Your task to perform on an android device: Open the calendar app, open the side menu, and click the "Day" option Image 0: 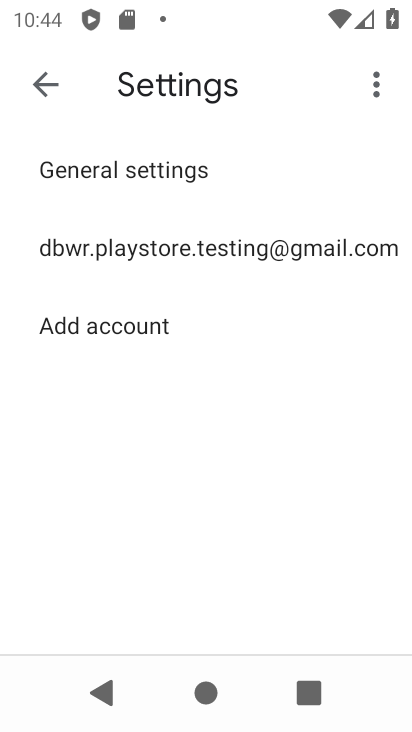
Step 0: press back button
Your task to perform on an android device: Open the calendar app, open the side menu, and click the "Day" option Image 1: 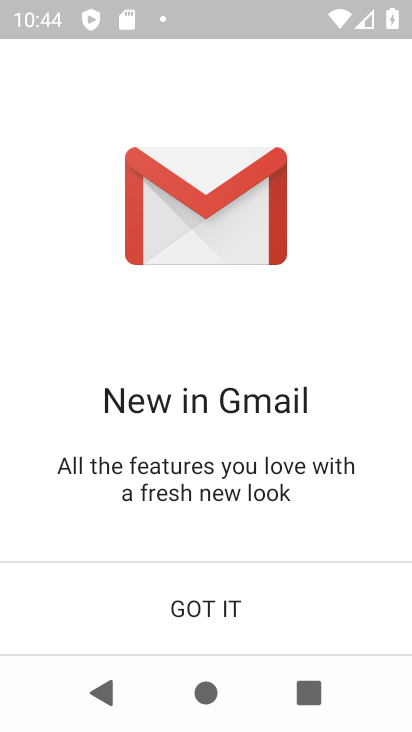
Step 1: press back button
Your task to perform on an android device: Open the calendar app, open the side menu, and click the "Day" option Image 2: 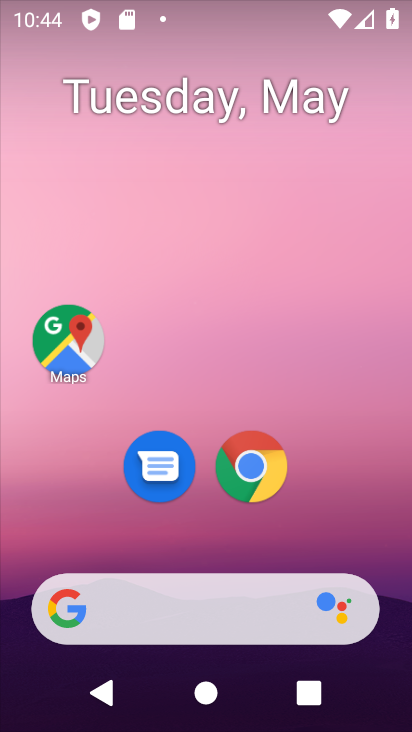
Step 2: drag from (215, 538) to (253, 23)
Your task to perform on an android device: Open the calendar app, open the side menu, and click the "Day" option Image 3: 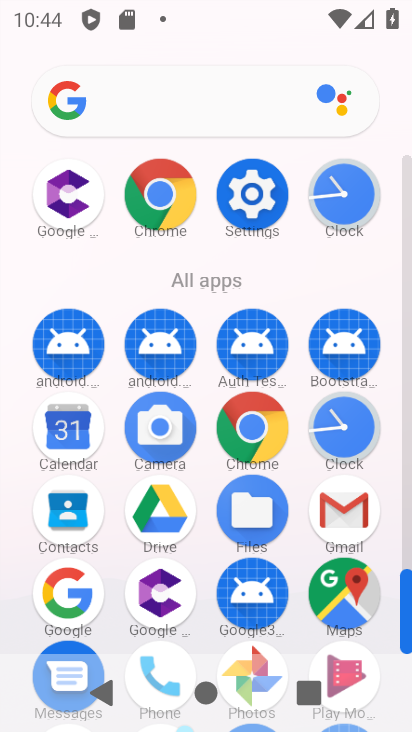
Step 3: click (61, 439)
Your task to perform on an android device: Open the calendar app, open the side menu, and click the "Day" option Image 4: 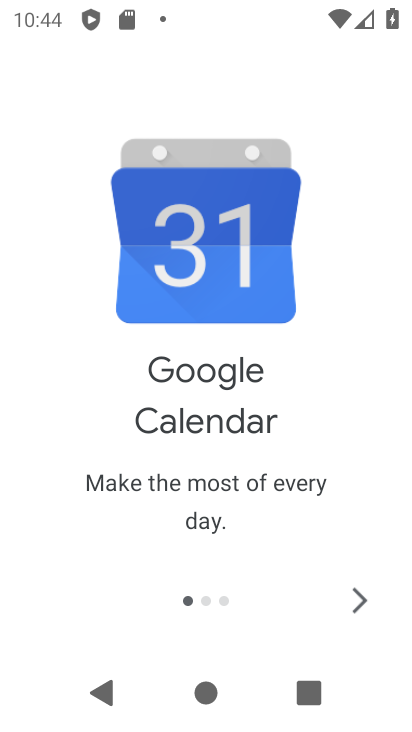
Step 4: click (350, 596)
Your task to perform on an android device: Open the calendar app, open the side menu, and click the "Day" option Image 5: 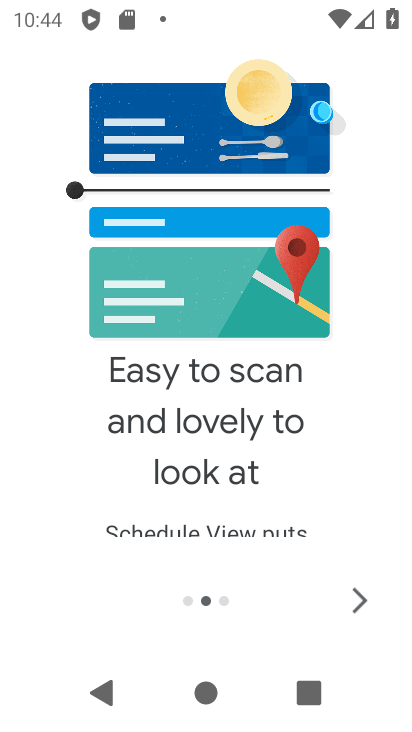
Step 5: click (350, 597)
Your task to perform on an android device: Open the calendar app, open the side menu, and click the "Day" option Image 6: 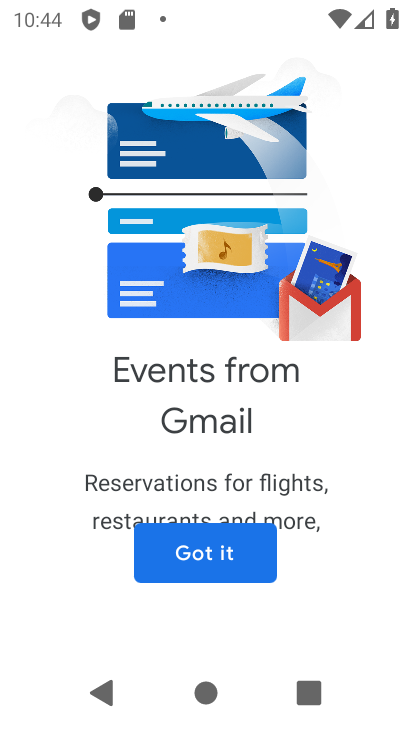
Step 6: click (229, 555)
Your task to perform on an android device: Open the calendar app, open the side menu, and click the "Day" option Image 7: 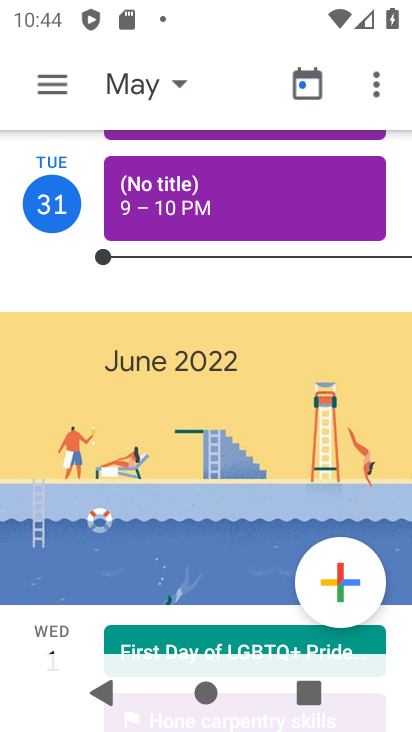
Step 7: click (39, 72)
Your task to perform on an android device: Open the calendar app, open the side menu, and click the "Day" option Image 8: 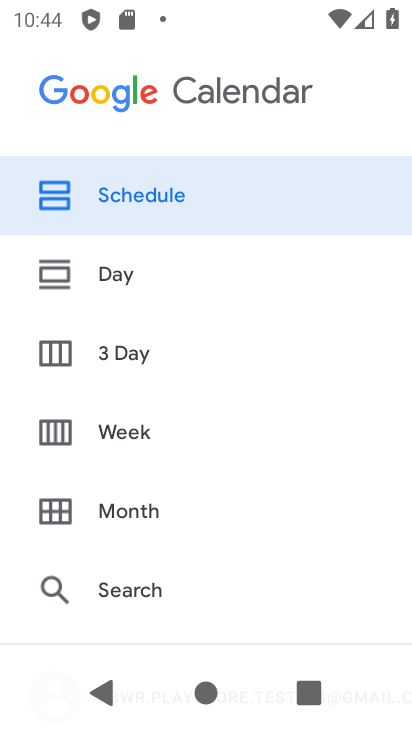
Step 8: click (126, 290)
Your task to perform on an android device: Open the calendar app, open the side menu, and click the "Day" option Image 9: 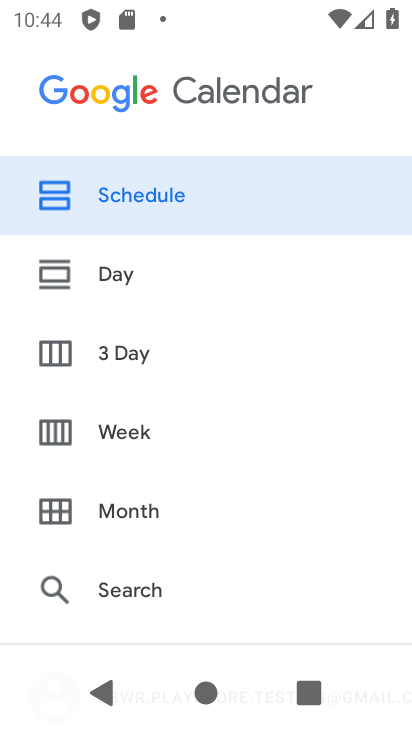
Step 9: click (133, 270)
Your task to perform on an android device: Open the calendar app, open the side menu, and click the "Day" option Image 10: 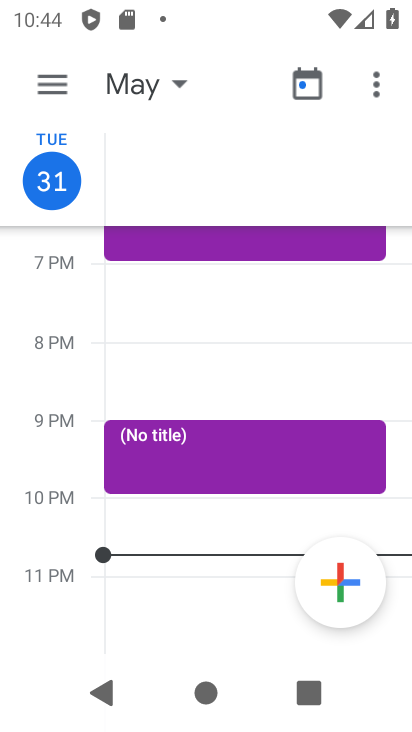
Step 10: task complete